Your task to perform on an android device: toggle show notifications on the lock screen Image 0: 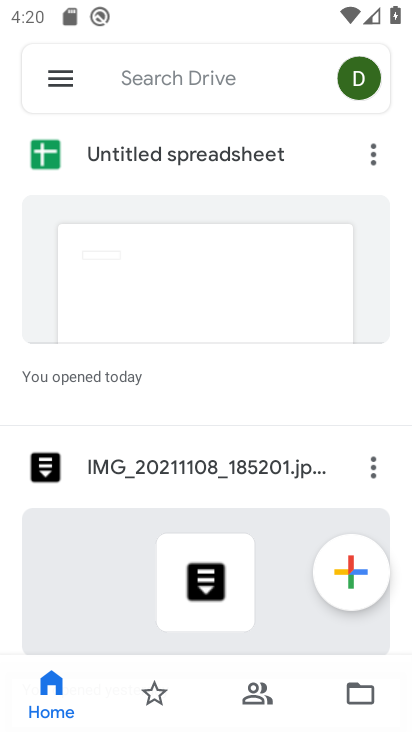
Step 0: press home button
Your task to perform on an android device: toggle show notifications on the lock screen Image 1: 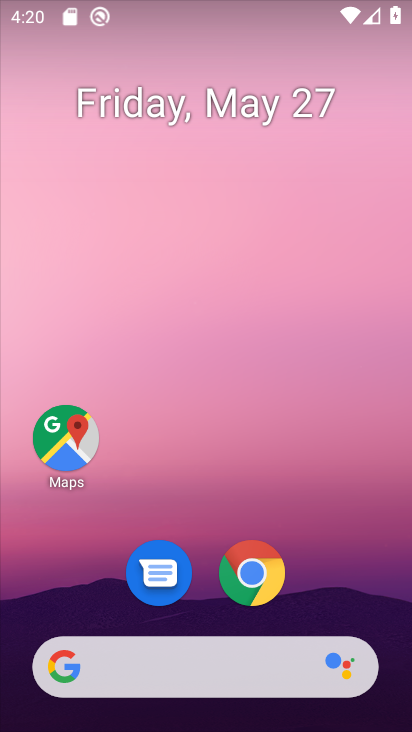
Step 1: drag from (328, 549) to (330, 52)
Your task to perform on an android device: toggle show notifications on the lock screen Image 2: 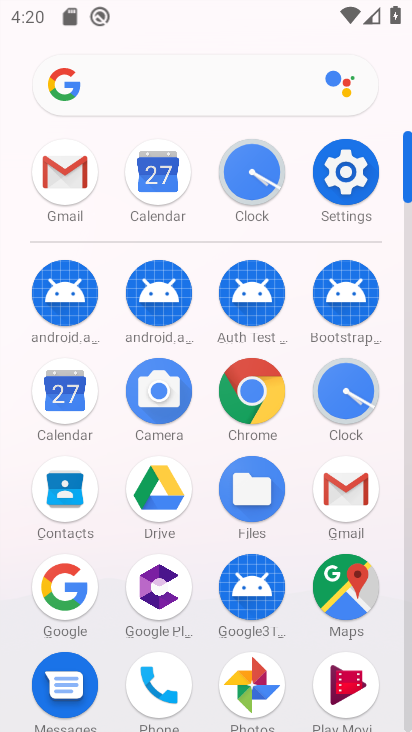
Step 2: click (345, 167)
Your task to perform on an android device: toggle show notifications on the lock screen Image 3: 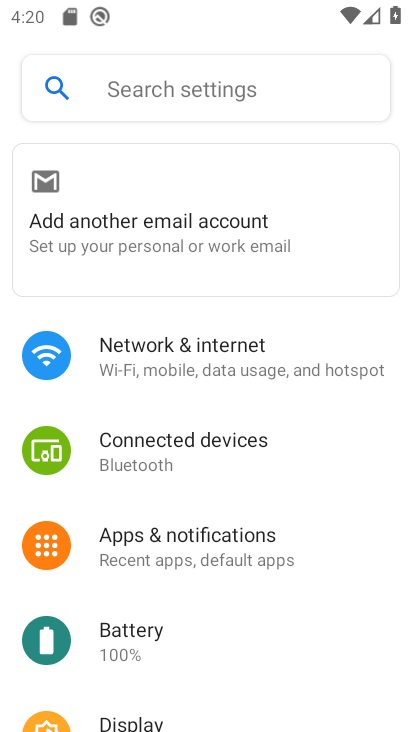
Step 3: click (270, 545)
Your task to perform on an android device: toggle show notifications on the lock screen Image 4: 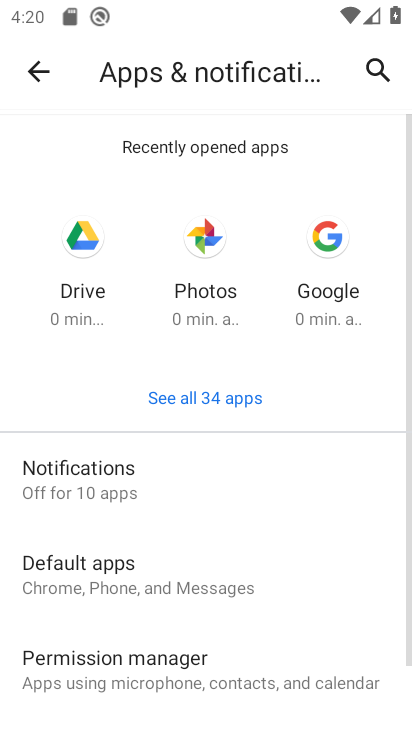
Step 4: click (199, 482)
Your task to perform on an android device: toggle show notifications on the lock screen Image 5: 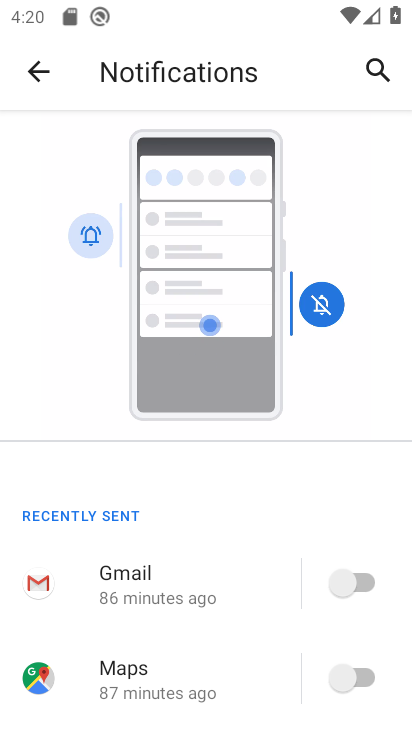
Step 5: drag from (285, 643) to (287, 0)
Your task to perform on an android device: toggle show notifications on the lock screen Image 6: 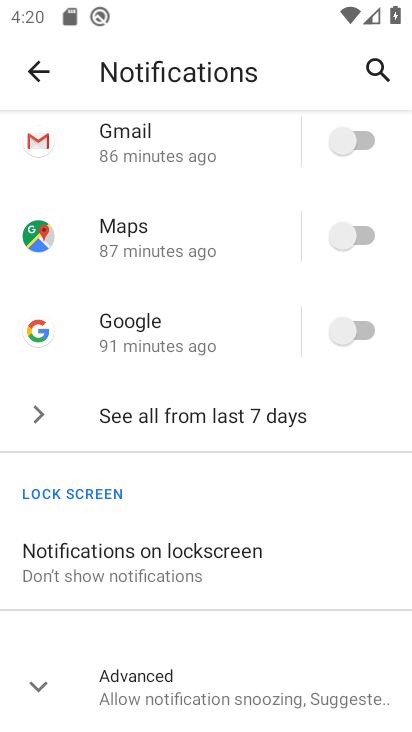
Step 6: click (223, 559)
Your task to perform on an android device: toggle show notifications on the lock screen Image 7: 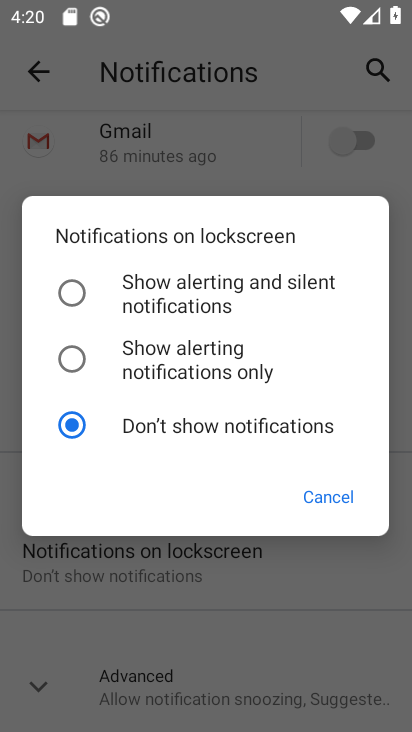
Step 7: click (71, 279)
Your task to perform on an android device: toggle show notifications on the lock screen Image 8: 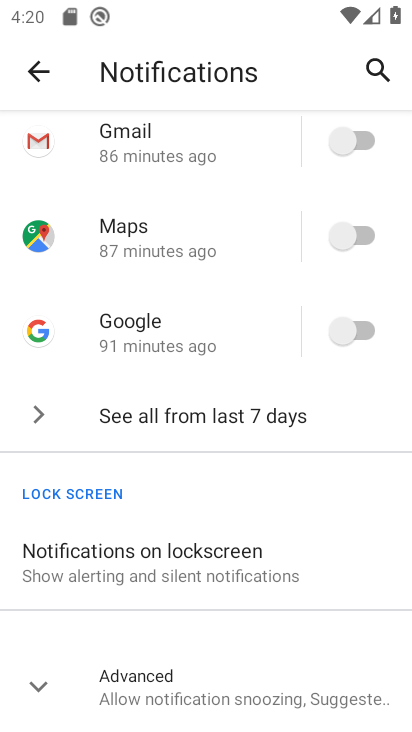
Step 8: task complete